Your task to perform on an android device: What's the weather going to be tomorrow? Image 0: 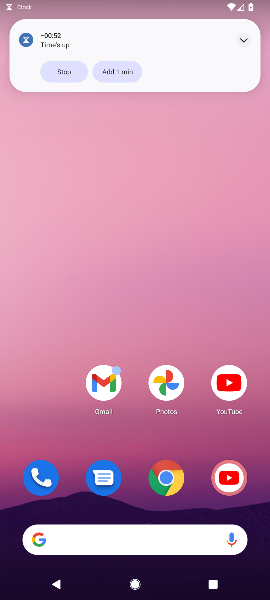
Step 0: drag from (108, 575) to (132, 36)
Your task to perform on an android device: What's the weather going to be tomorrow? Image 1: 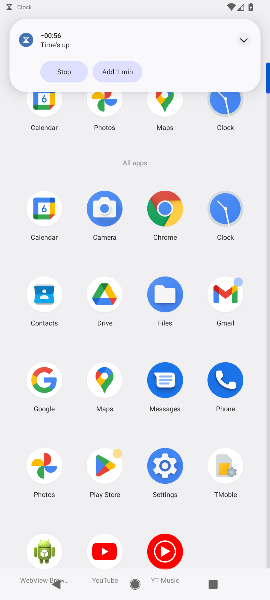
Step 1: click (39, 381)
Your task to perform on an android device: What's the weather going to be tomorrow? Image 2: 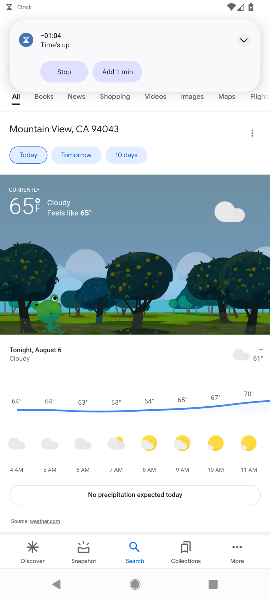
Step 2: click (77, 154)
Your task to perform on an android device: What's the weather going to be tomorrow? Image 3: 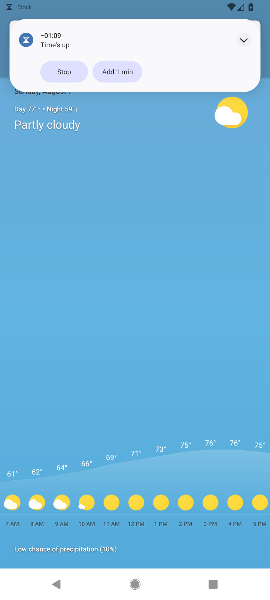
Step 3: task complete